Your task to perform on an android device: Open the phone app and click the voicemail tab. Image 0: 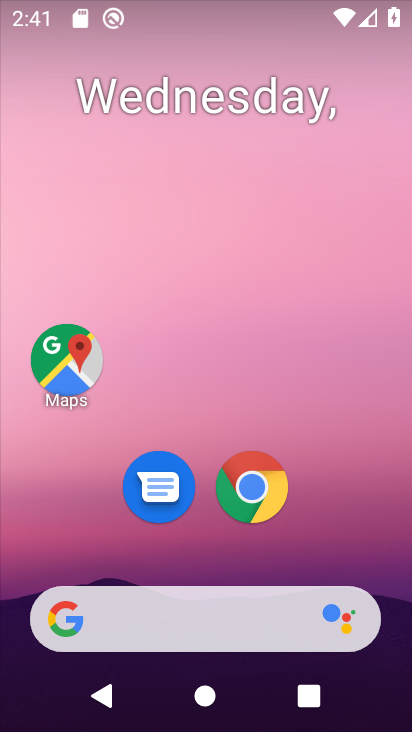
Step 0: drag from (241, 695) to (232, 25)
Your task to perform on an android device: Open the phone app and click the voicemail tab. Image 1: 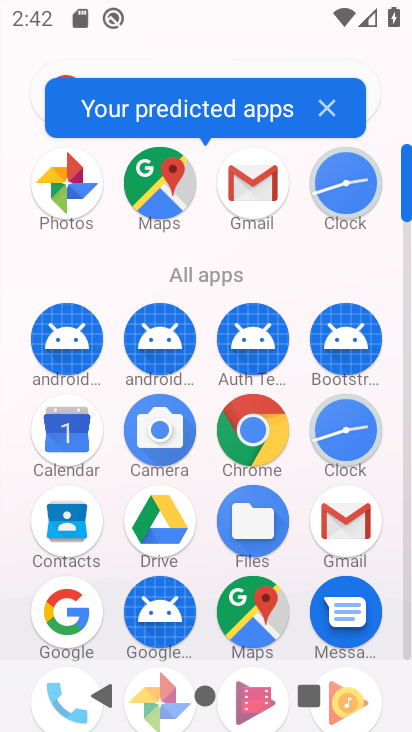
Step 1: drag from (267, 425) to (217, 23)
Your task to perform on an android device: Open the phone app and click the voicemail tab. Image 2: 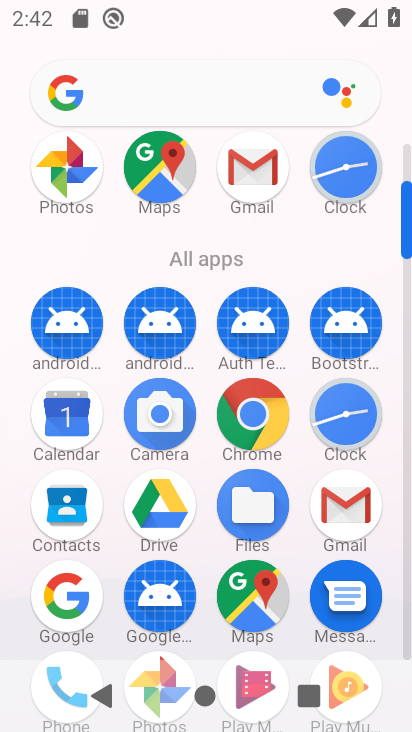
Step 2: click (48, 671)
Your task to perform on an android device: Open the phone app and click the voicemail tab. Image 3: 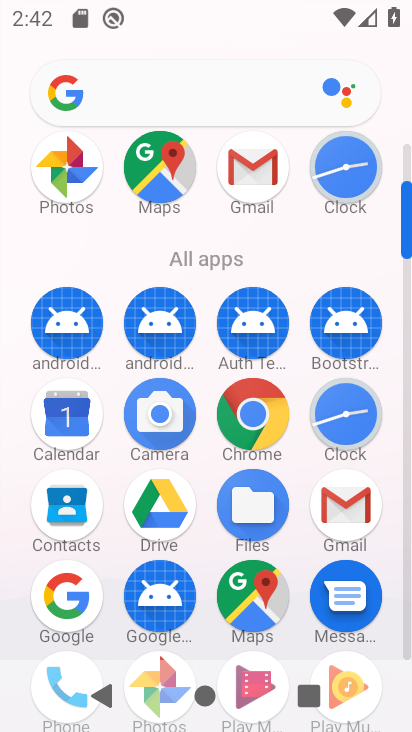
Step 3: click (70, 656)
Your task to perform on an android device: Open the phone app and click the voicemail tab. Image 4: 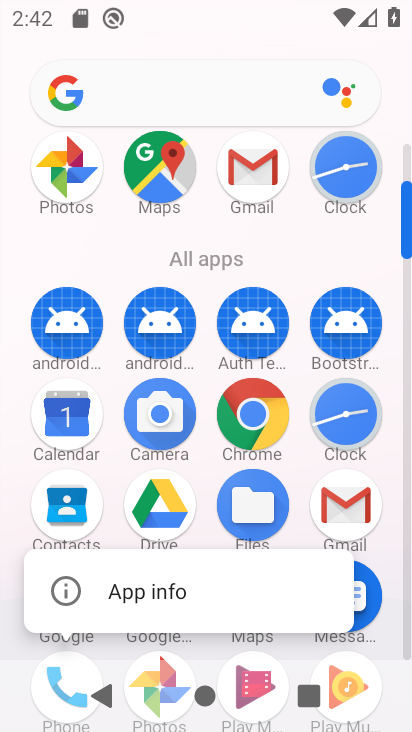
Step 4: click (71, 690)
Your task to perform on an android device: Open the phone app and click the voicemail tab. Image 5: 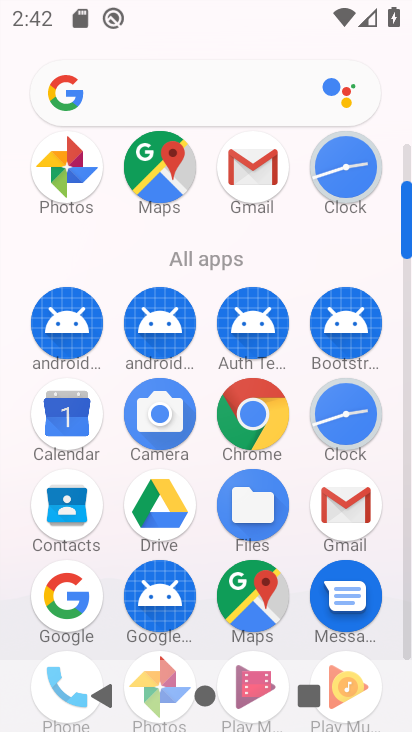
Step 5: drag from (285, 588) to (184, 9)
Your task to perform on an android device: Open the phone app and click the voicemail tab. Image 6: 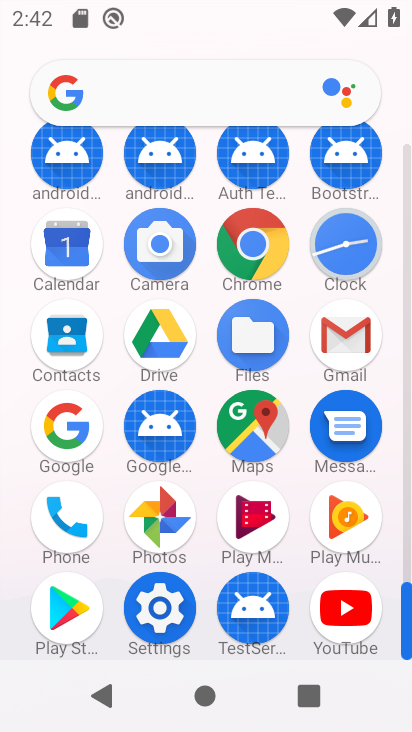
Step 6: click (67, 504)
Your task to perform on an android device: Open the phone app and click the voicemail tab. Image 7: 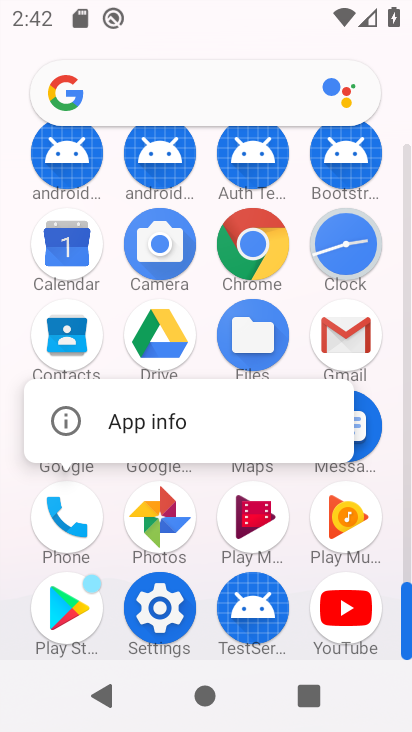
Step 7: click (71, 526)
Your task to perform on an android device: Open the phone app and click the voicemail tab. Image 8: 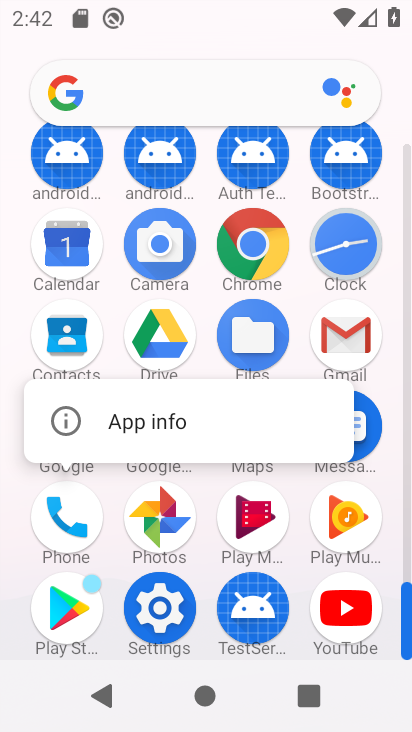
Step 8: click (71, 526)
Your task to perform on an android device: Open the phone app and click the voicemail tab. Image 9: 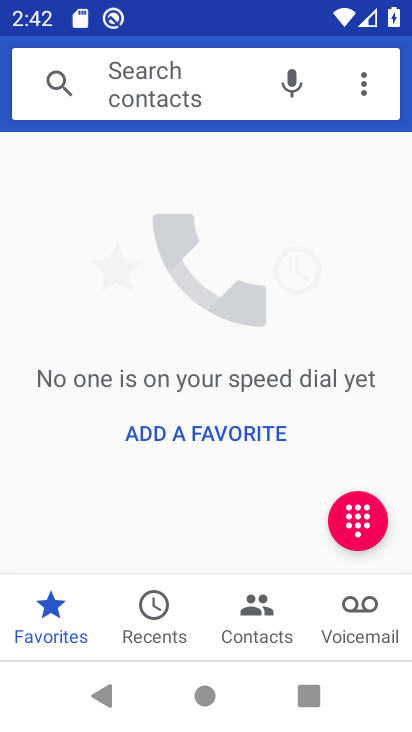
Step 9: click (342, 638)
Your task to perform on an android device: Open the phone app and click the voicemail tab. Image 10: 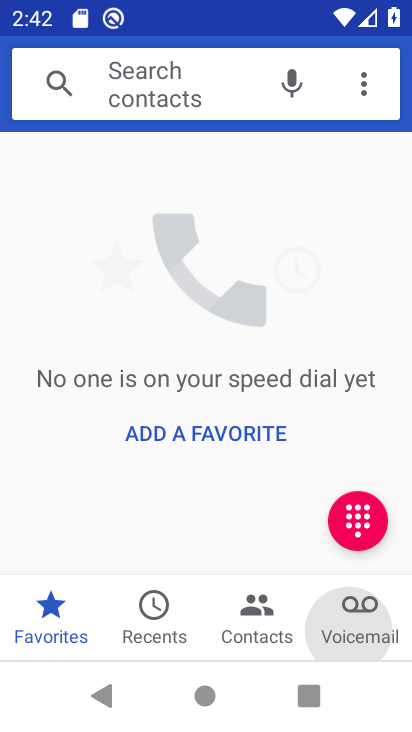
Step 10: click (342, 638)
Your task to perform on an android device: Open the phone app and click the voicemail tab. Image 11: 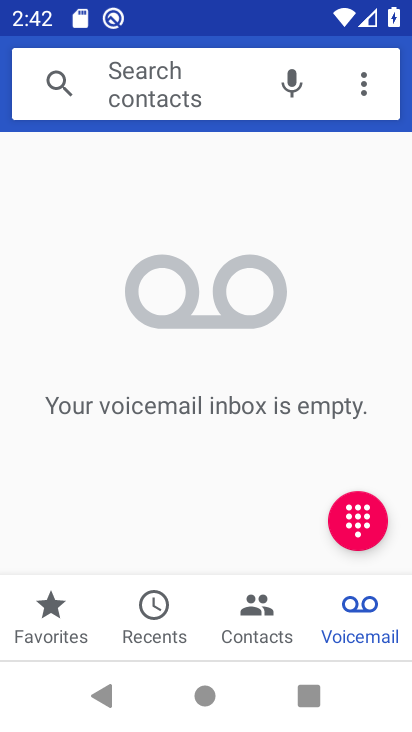
Step 11: task complete